Your task to perform on an android device: delete location history Image 0: 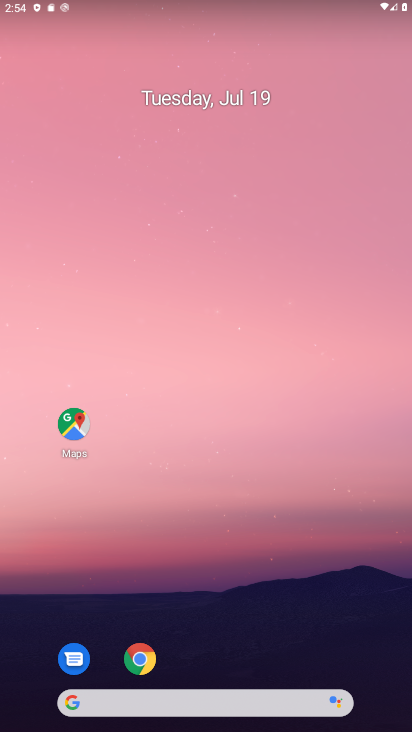
Step 0: click (79, 410)
Your task to perform on an android device: delete location history Image 1: 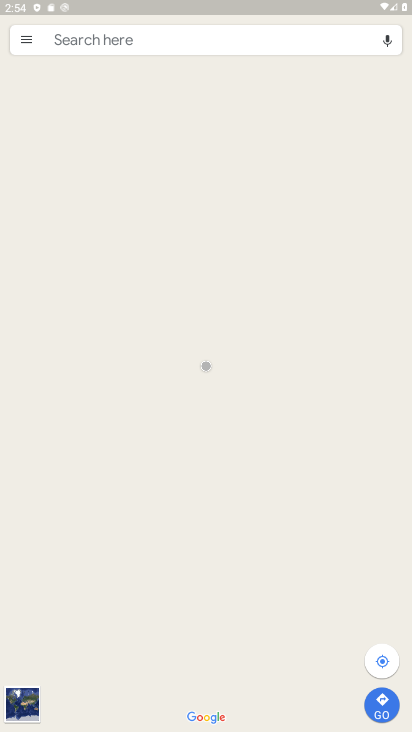
Step 1: click (24, 35)
Your task to perform on an android device: delete location history Image 2: 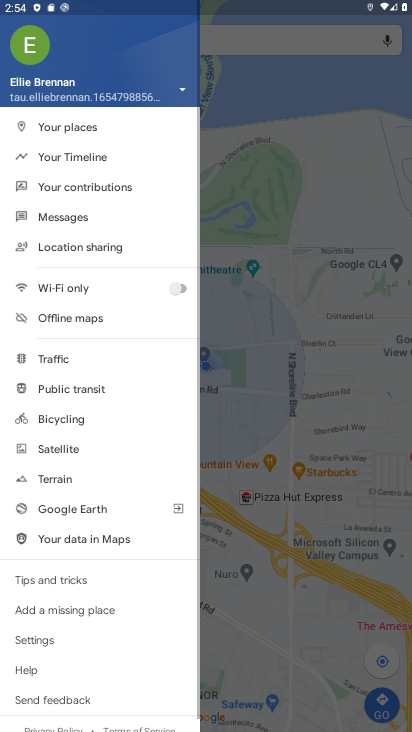
Step 2: click (64, 155)
Your task to perform on an android device: delete location history Image 3: 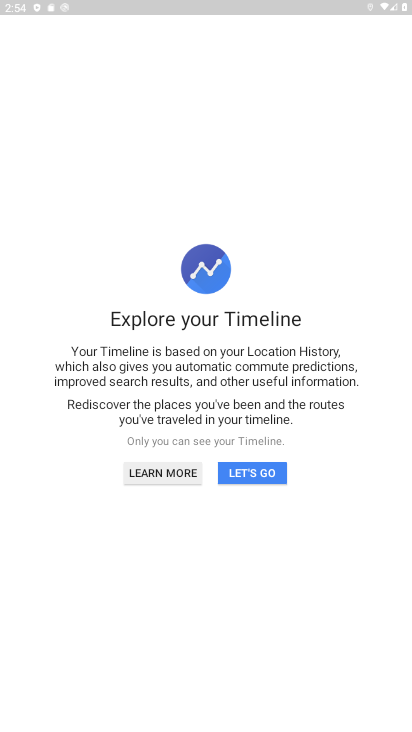
Step 3: click (247, 470)
Your task to perform on an android device: delete location history Image 4: 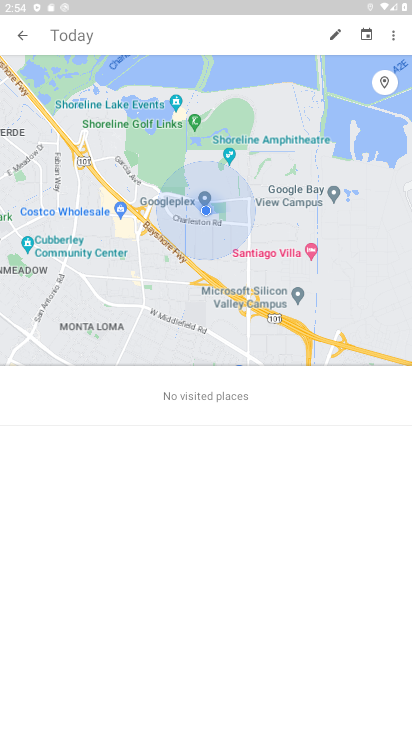
Step 4: click (389, 37)
Your task to perform on an android device: delete location history Image 5: 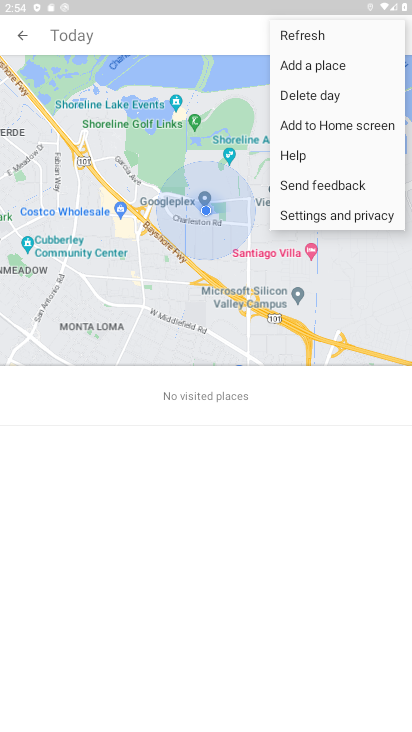
Step 5: click (326, 210)
Your task to perform on an android device: delete location history Image 6: 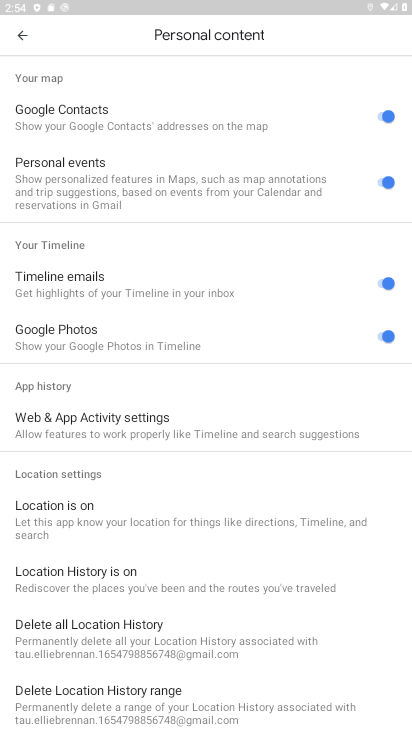
Step 6: click (125, 627)
Your task to perform on an android device: delete location history Image 7: 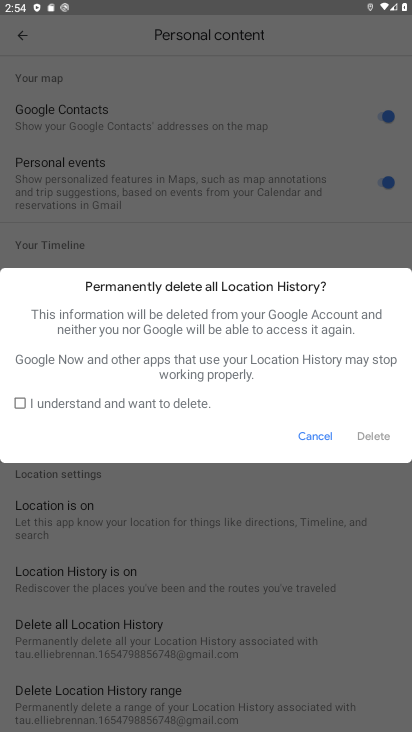
Step 7: click (23, 405)
Your task to perform on an android device: delete location history Image 8: 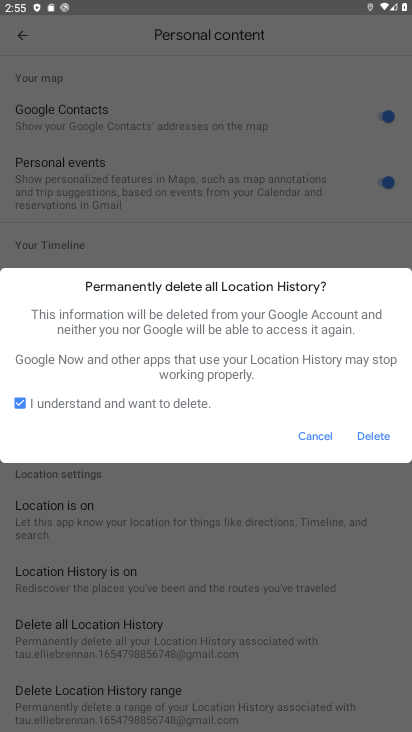
Step 8: click (368, 431)
Your task to perform on an android device: delete location history Image 9: 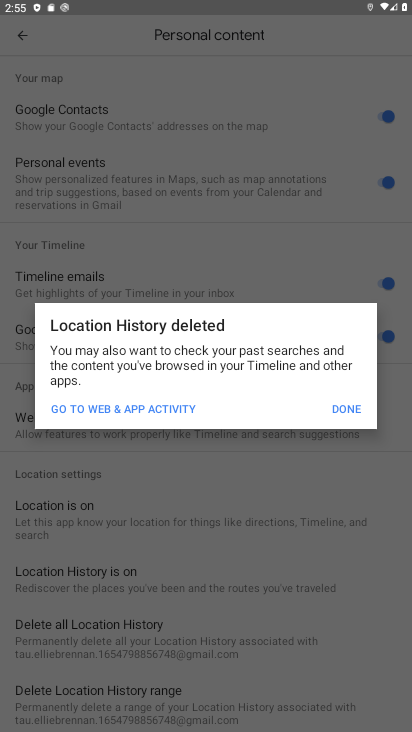
Step 9: task complete